Your task to perform on an android device: Open Google Chrome and click the shortcut for Amazon.com Image 0: 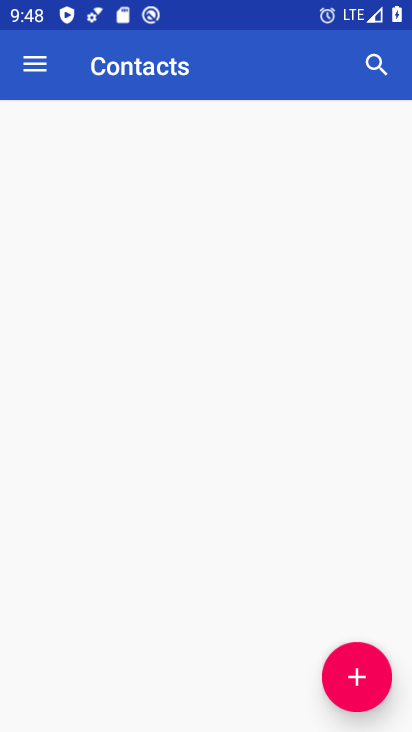
Step 0: press home button
Your task to perform on an android device: Open Google Chrome and click the shortcut for Amazon.com Image 1: 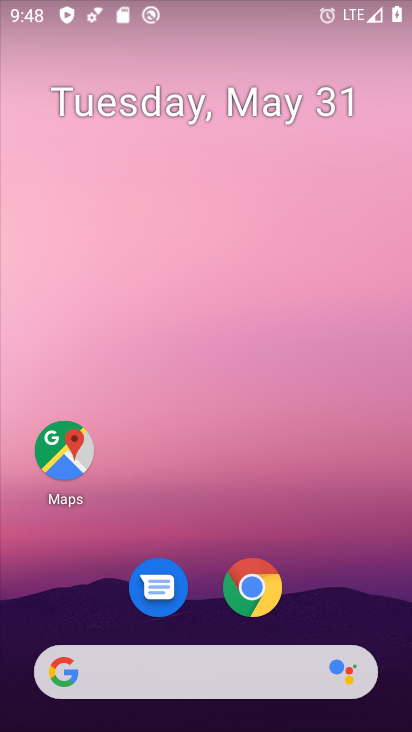
Step 1: drag from (366, 599) to (360, 172)
Your task to perform on an android device: Open Google Chrome and click the shortcut for Amazon.com Image 2: 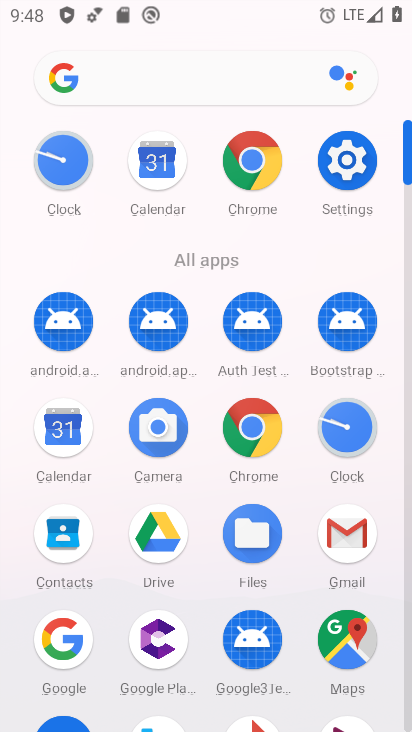
Step 2: click (241, 432)
Your task to perform on an android device: Open Google Chrome and click the shortcut for Amazon.com Image 3: 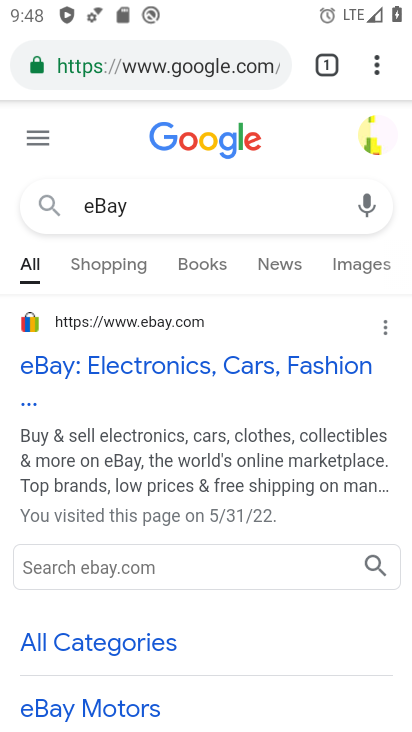
Step 3: press back button
Your task to perform on an android device: Open Google Chrome and click the shortcut for Amazon.com Image 4: 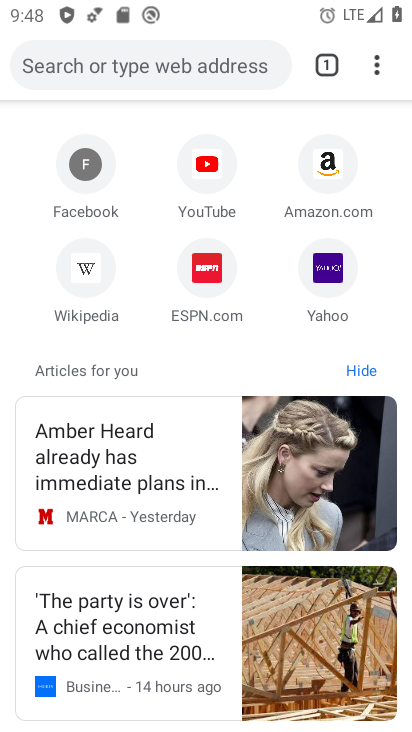
Step 4: click (337, 188)
Your task to perform on an android device: Open Google Chrome and click the shortcut for Amazon.com Image 5: 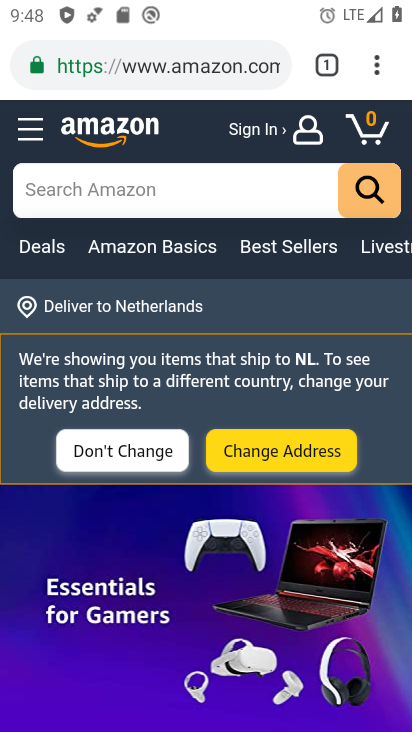
Step 5: task complete